Your task to perform on an android device: Open calendar and show me the third week of next month Image 0: 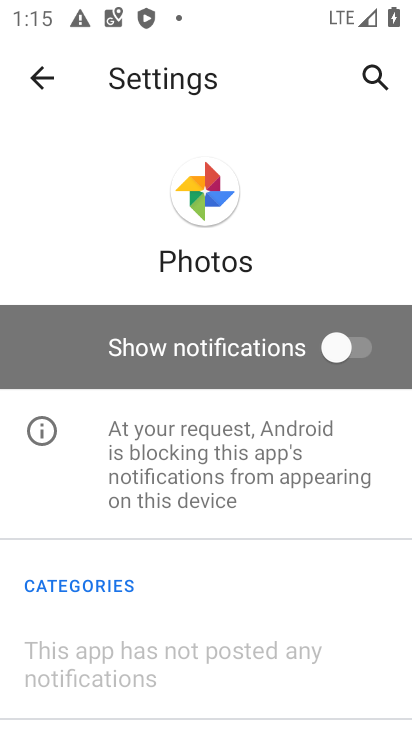
Step 0: press home button
Your task to perform on an android device: Open calendar and show me the third week of next month Image 1: 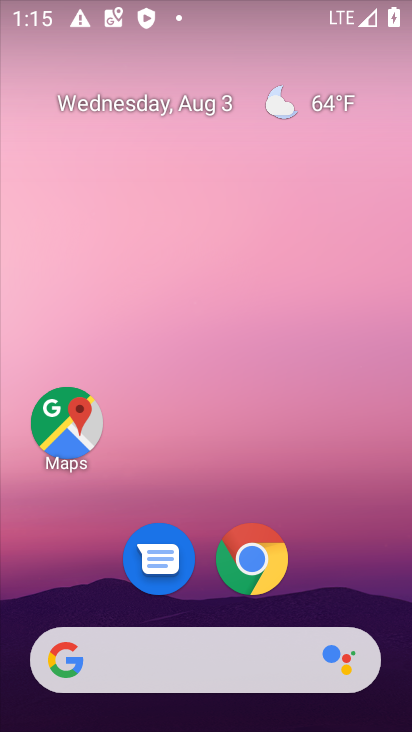
Step 1: drag from (212, 611) to (219, 52)
Your task to perform on an android device: Open calendar and show me the third week of next month Image 2: 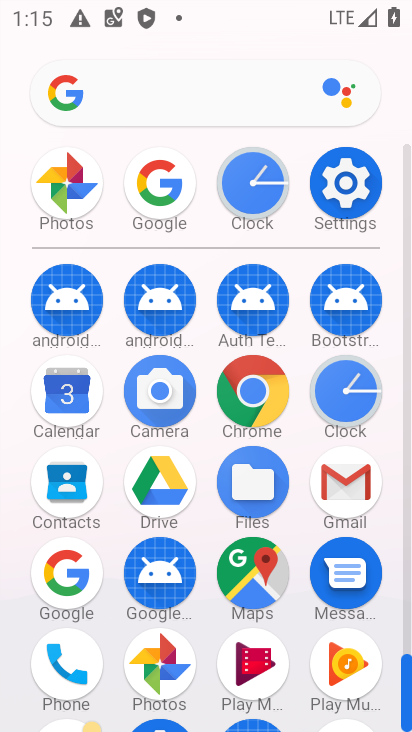
Step 2: click (65, 400)
Your task to perform on an android device: Open calendar and show me the third week of next month Image 3: 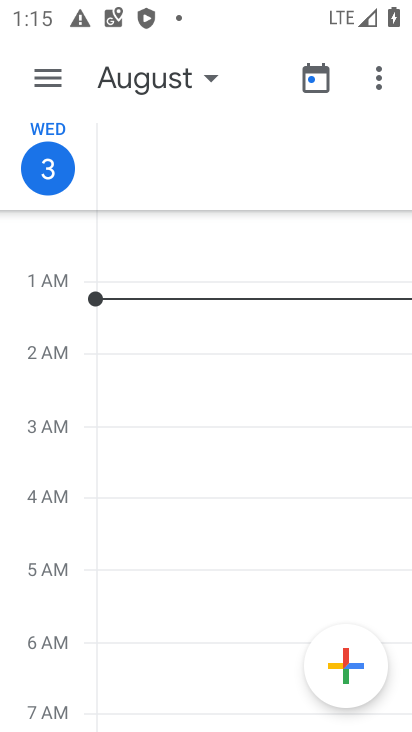
Step 3: click (201, 76)
Your task to perform on an android device: Open calendar and show me the third week of next month Image 4: 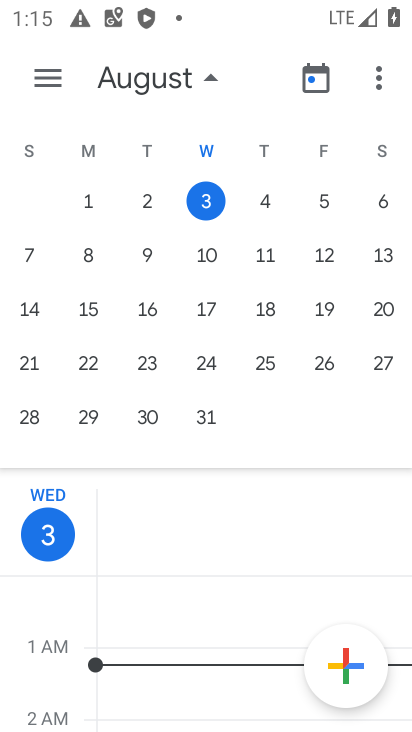
Step 4: drag from (375, 285) to (80, 281)
Your task to perform on an android device: Open calendar and show me the third week of next month Image 5: 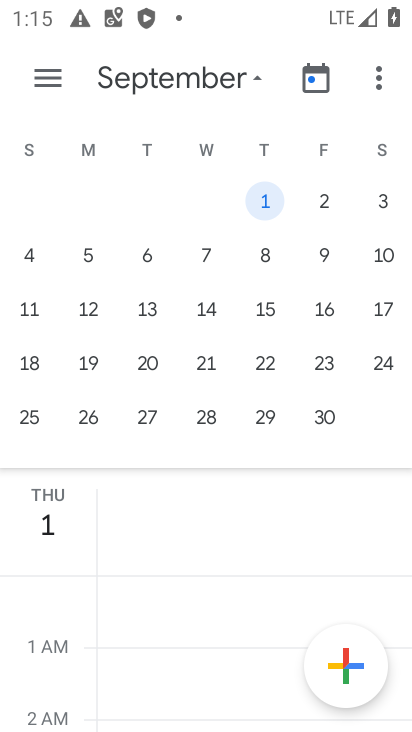
Step 5: click (88, 363)
Your task to perform on an android device: Open calendar and show me the third week of next month Image 6: 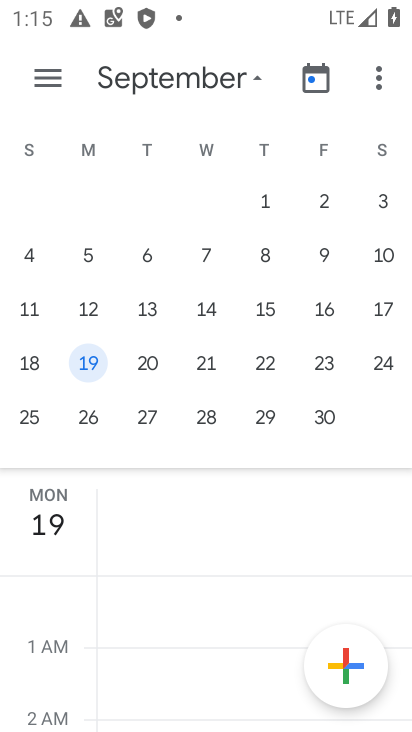
Step 6: click (55, 80)
Your task to perform on an android device: Open calendar and show me the third week of next month Image 7: 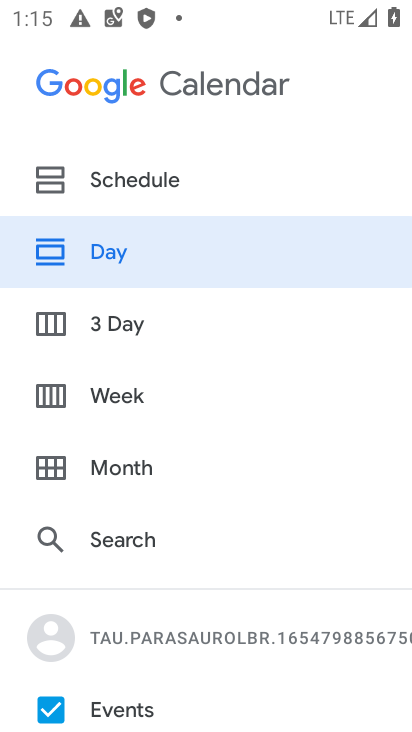
Step 7: click (111, 397)
Your task to perform on an android device: Open calendar and show me the third week of next month Image 8: 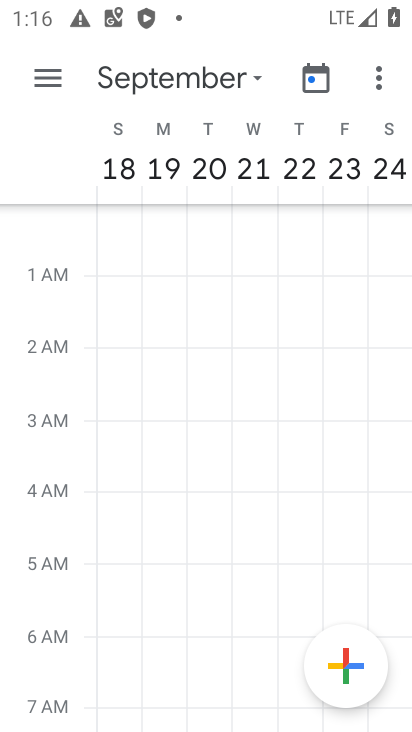
Step 8: task complete